Your task to perform on an android device: What's on my calendar tomorrow? Image 0: 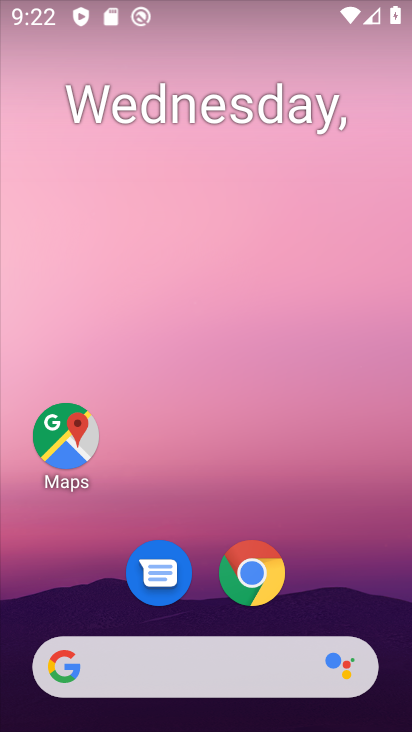
Step 0: drag from (324, 546) to (322, 270)
Your task to perform on an android device: What's on my calendar tomorrow? Image 1: 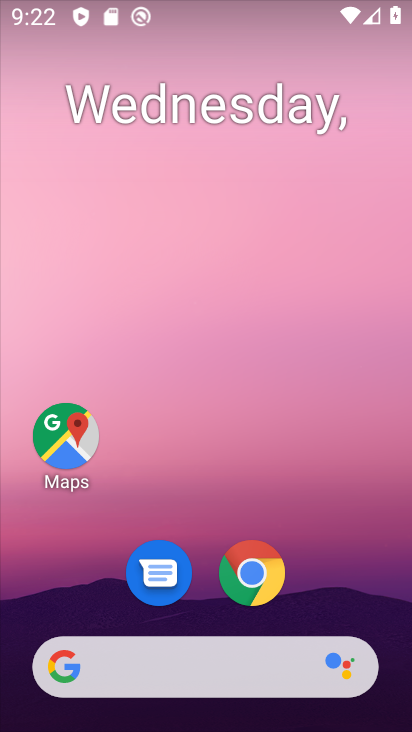
Step 1: drag from (312, 354) to (304, 202)
Your task to perform on an android device: What's on my calendar tomorrow? Image 2: 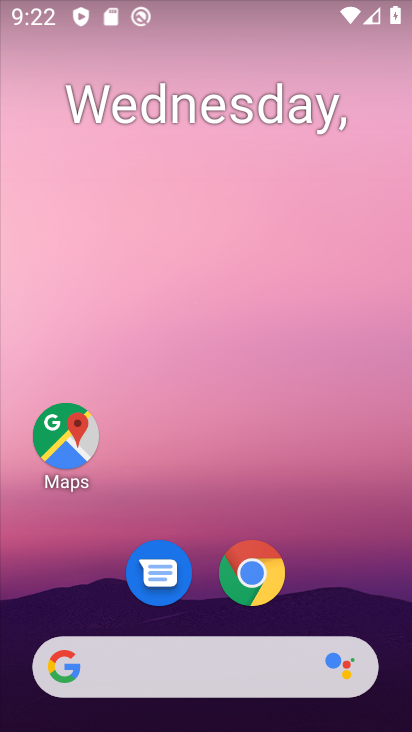
Step 2: drag from (305, 563) to (286, 232)
Your task to perform on an android device: What's on my calendar tomorrow? Image 3: 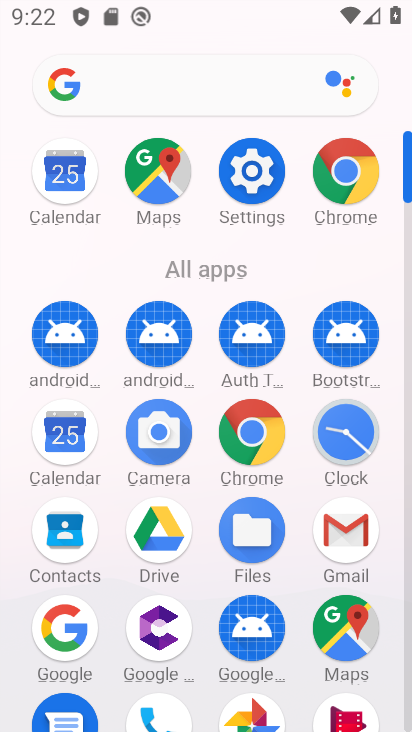
Step 3: click (55, 169)
Your task to perform on an android device: What's on my calendar tomorrow? Image 4: 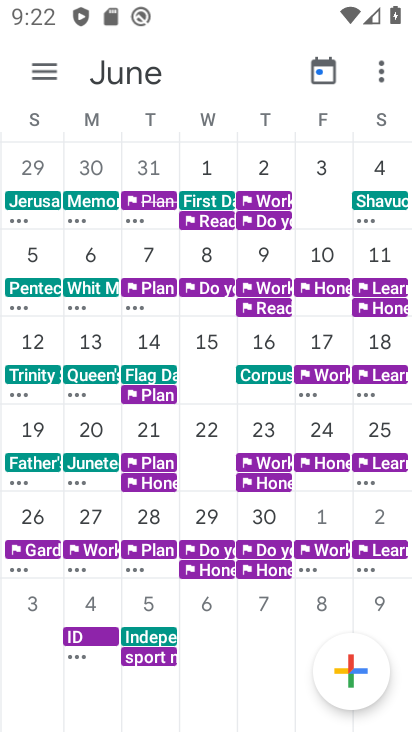
Step 4: drag from (83, 334) to (391, 385)
Your task to perform on an android device: What's on my calendar tomorrow? Image 5: 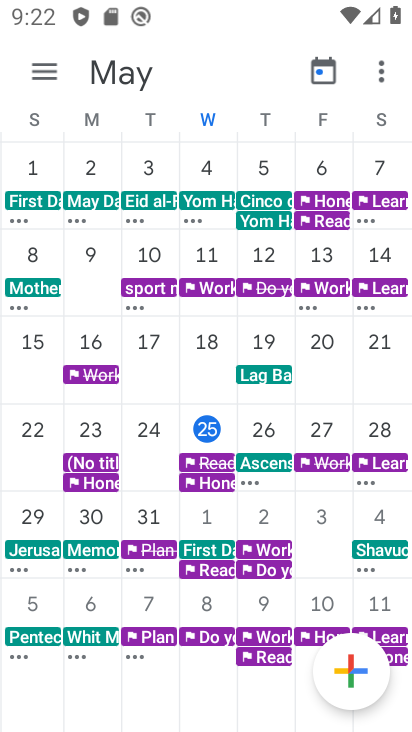
Step 5: click (309, 433)
Your task to perform on an android device: What's on my calendar tomorrow? Image 6: 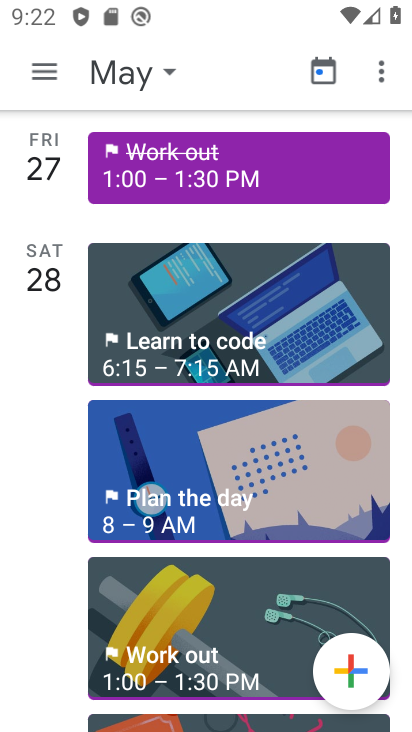
Step 6: task complete